Your task to perform on an android device: find snoozed emails in the gmail app Image 0: 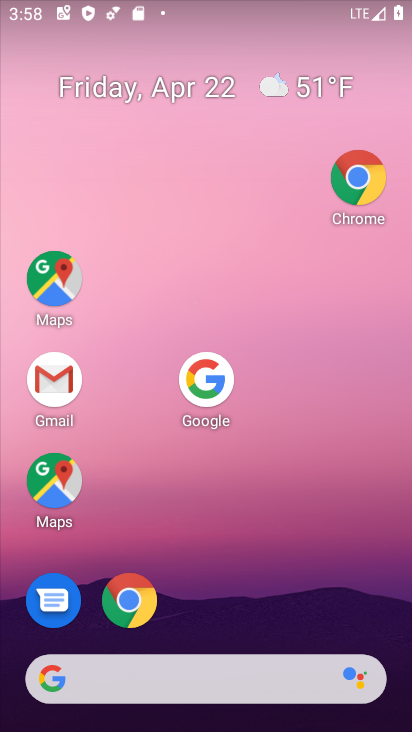
Step 0: drag from (316, 683) to (222, 109)
Your task to perform on an android device: find snoozed emails in the gmail app Image 1: 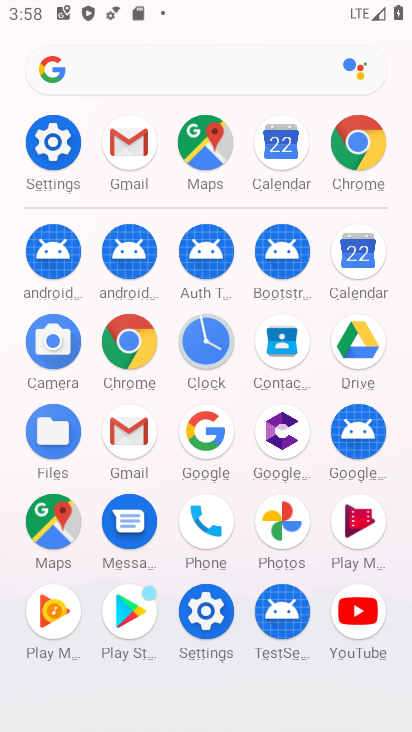
Step 1: click (133, 148)
Your task to perform on an android device: find snoozed emails in the gmail app Image 2: 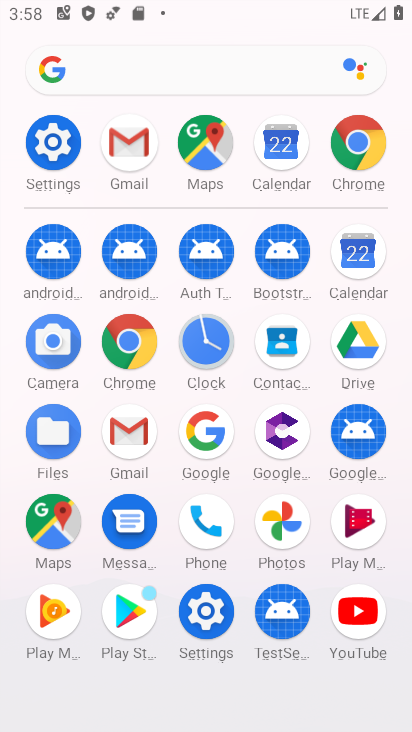
Step 2: click (133, 149)
Your task to perform on an android device: find snoozed emails in the gmail app Image 3: 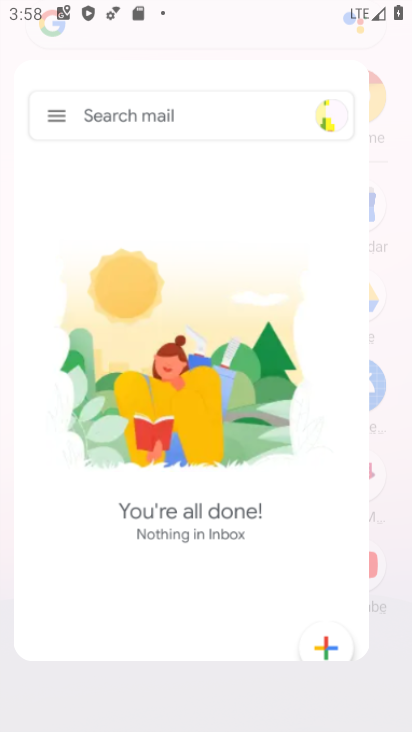
Step 3: click (133, 149)
Your task to perform on an android device: find snoozed emails in the gmail app Image 4: 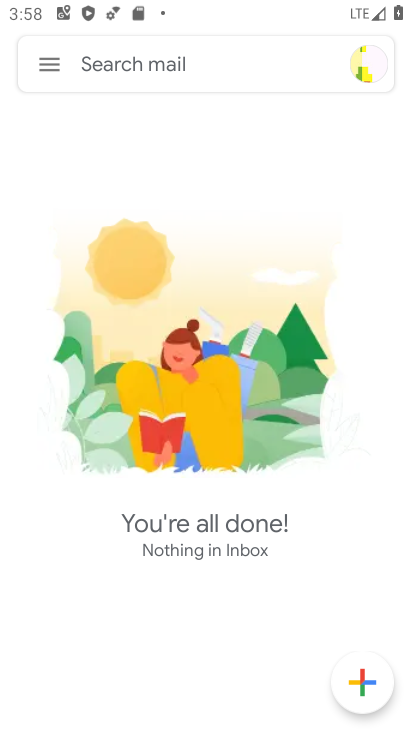
Step 4: click (130, 153)
Your task to perform on an android device: find snoozed emails in the gmail app Image 5: 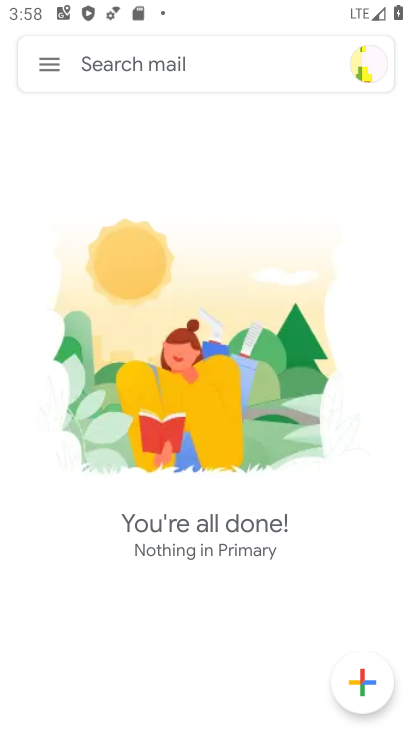
Step 5: click (42, 64)
Your task to perform on an android device: find snoozed emails in the gmail app Image 6: 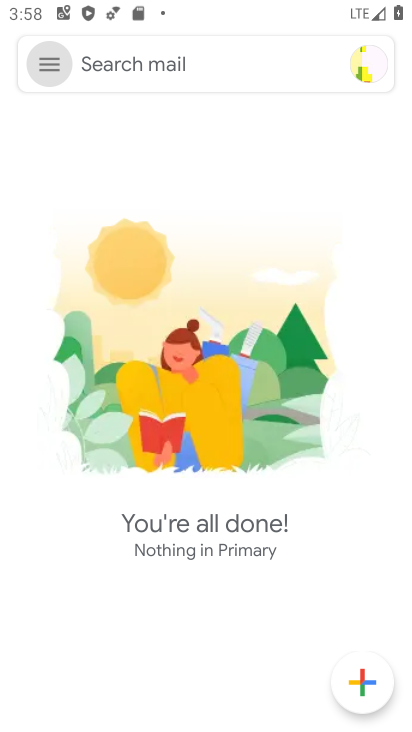
Step 6: click (44, 62)
Your task to perform on an android device: find snoozed emails in the gmail app Image 7: 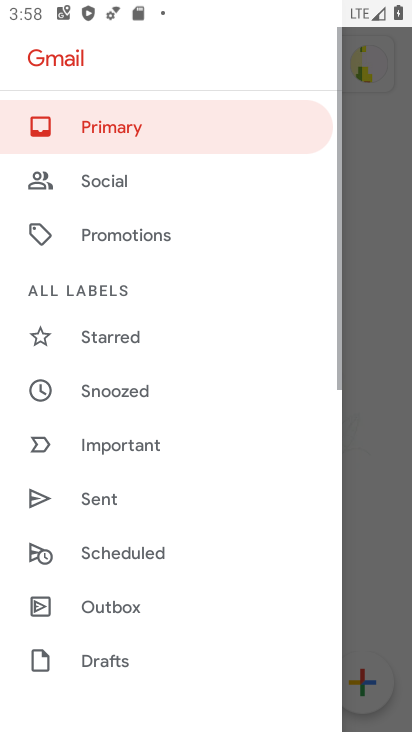
Step 7: click (44, 67)
Your task to perform on an android device: find snoozed emails in the gmail app Image 8: 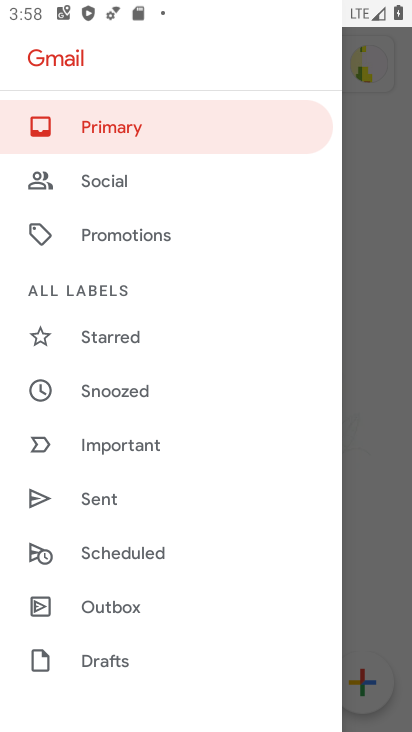
Step 8: click (95, 388)
Your task to perform on an android device: find snoozed emails in the gmail app Image 9: 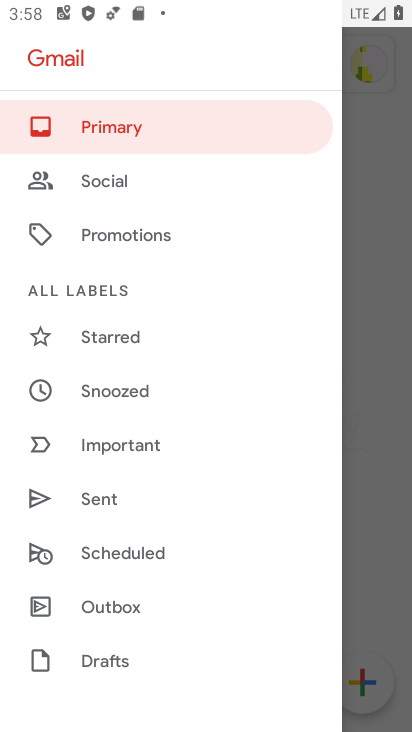
Step 9: click (114, 380)
Your task to perform on an android device: find snoozed emails in the gmail app Image 10: 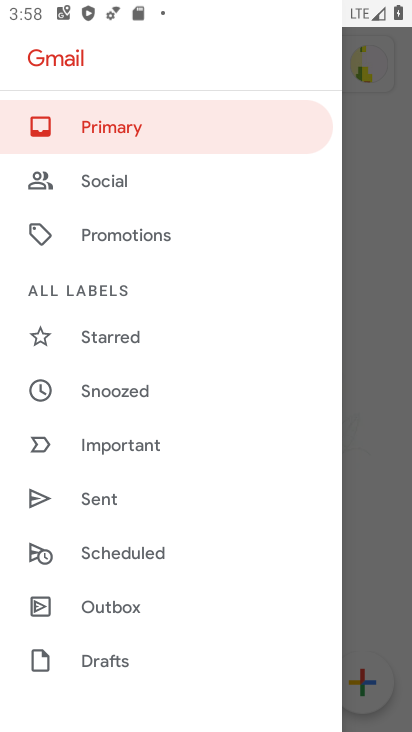
Step 10: click (114, 403)
Your task to perform on an android device: find snoozed emails in the gmail app Image 11: 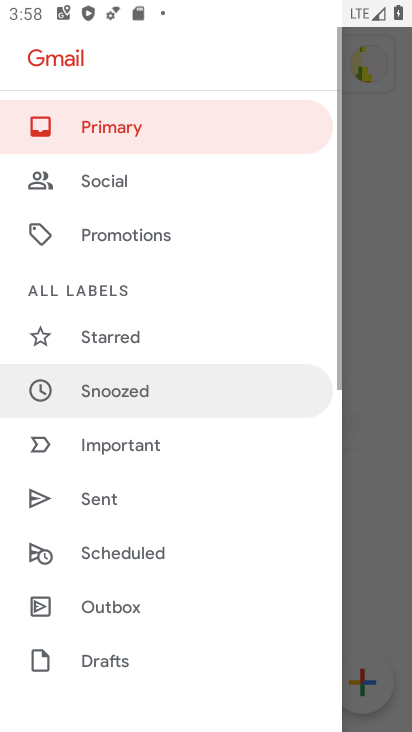
Step 11: click (120, 401)
Your task to perform on an android device: find snoozed emails in the gmail app Image 12: 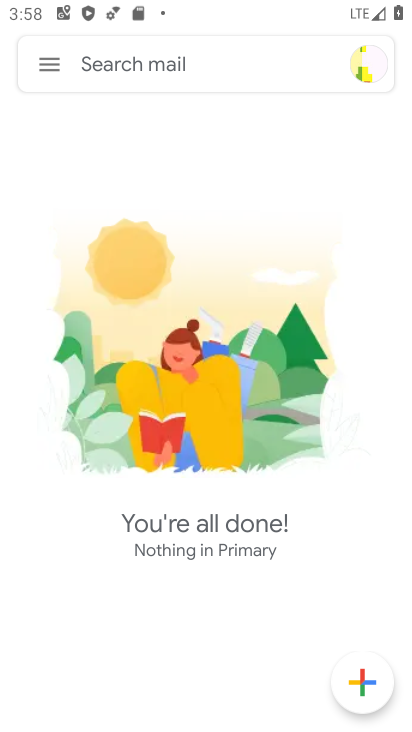
Step 12: click (120, 402)
Your task to perform on an android device: find snoozed emails in the gmail app Image 13: 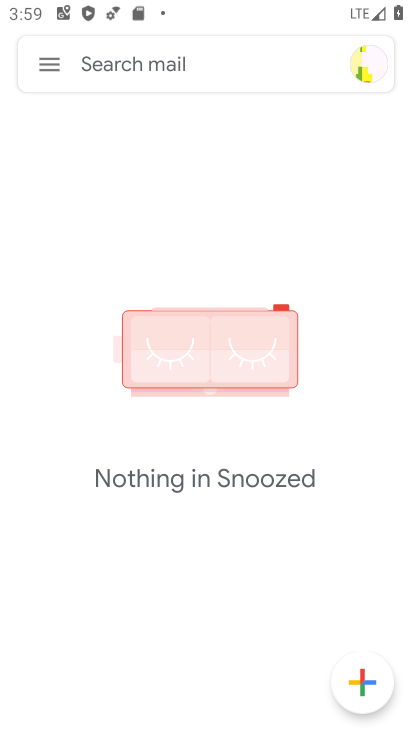
Step 13: task complete